Your task to perform on an android device: allow notifications from all sites in the chrome app Image 0: 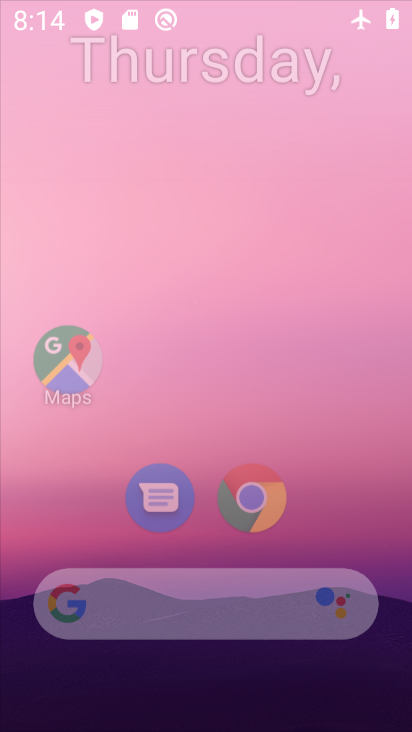
Step 0: drag from (252, 587) to (251, 222)
Your task to perform on an android device: allow notifications from all sites in the chrome app Image 1: 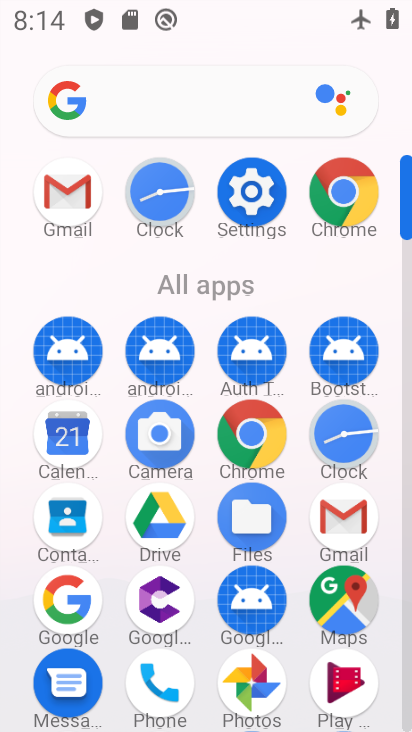
Step 1: click (244, 425)
Your task to perform on an android device: allow notifications from all sites in the chrome app Image 2: 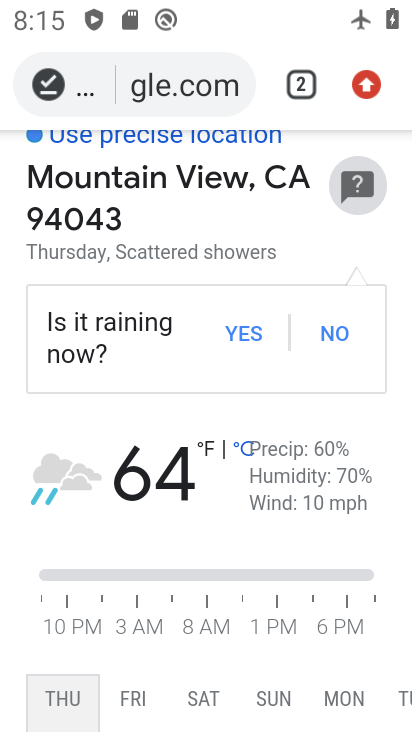
Step 2: click (376, 73)
Your task to perform on an android device: allow notifications from all sites in the chrome app Image 3: 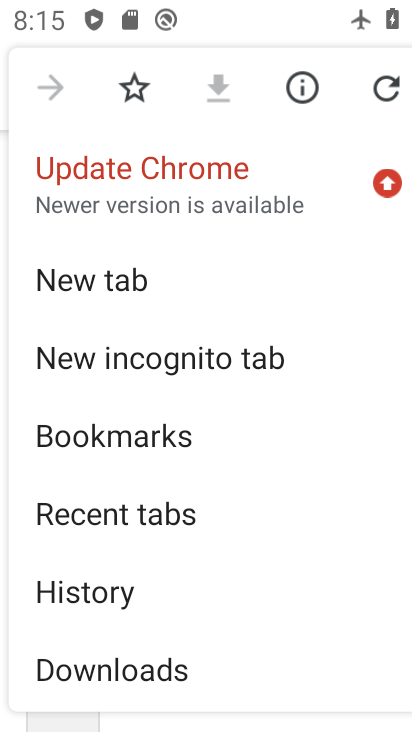
Step 3: drag from (279, 629) to (293, 209)
Your task to perform on an android device: allow notifications from all sites in the chrome app Image 4: 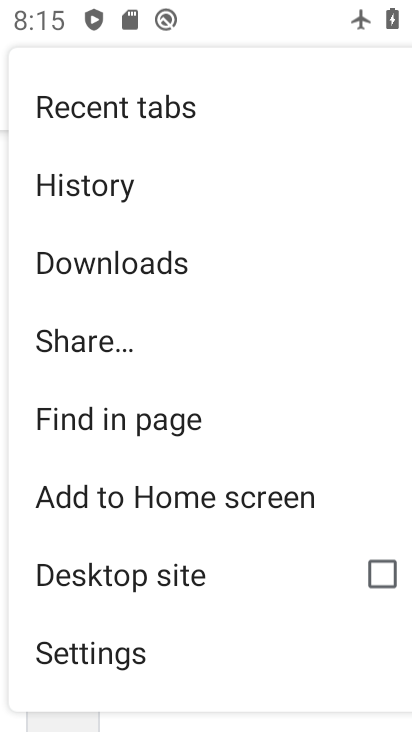
Step 4: click (140, 649)
Your task to perform on an android device: allow notifications from all sites in the chrome app Image 5: 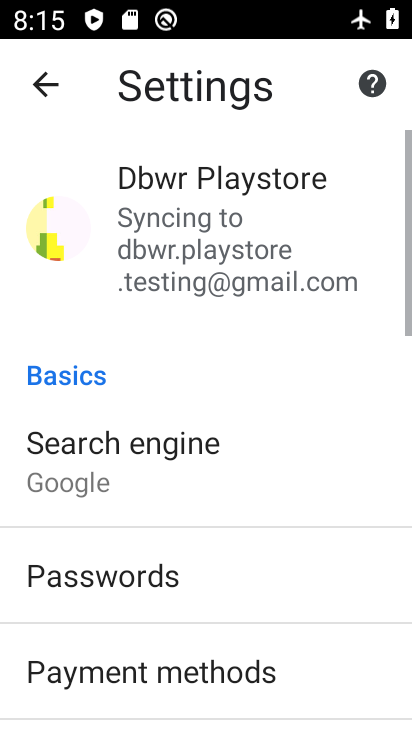
Step 5: drag from (143, 641) to (238, 117)
Your task to perform on an android device: allow notifications from all sites in the chrome app Image 6: 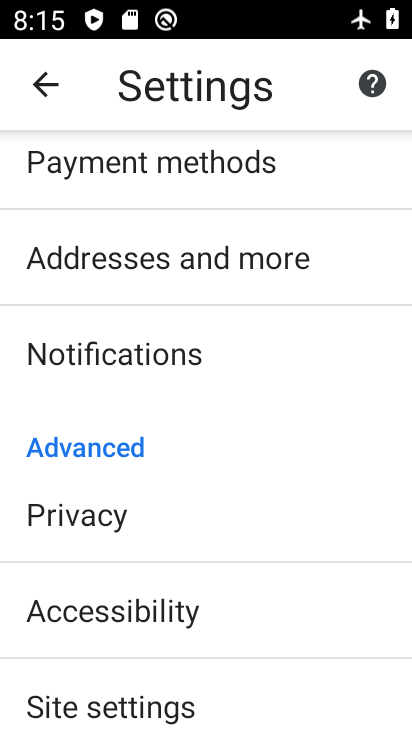
Step 6: drag from (166, 627) to (252, 355)
Your task to perform on an android device: allow notifications from all sites in the chrome app Image 7: 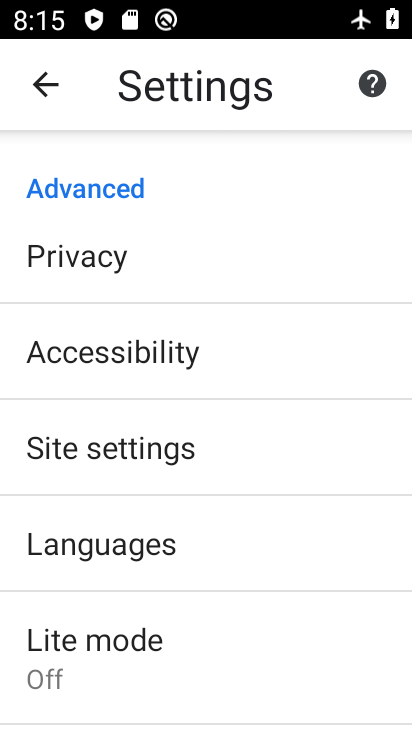
Step 7: click (144, 453)
Your task to perform on an android device: allow notifications from all sites in the chrome app Image 8: 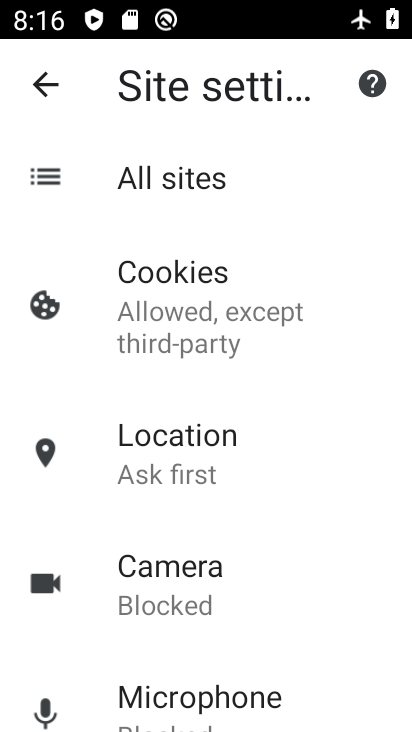
Step 8: click (189, 330)
Your task to perform on an android device: allow notifications from all sites in the chrome app Image 9: 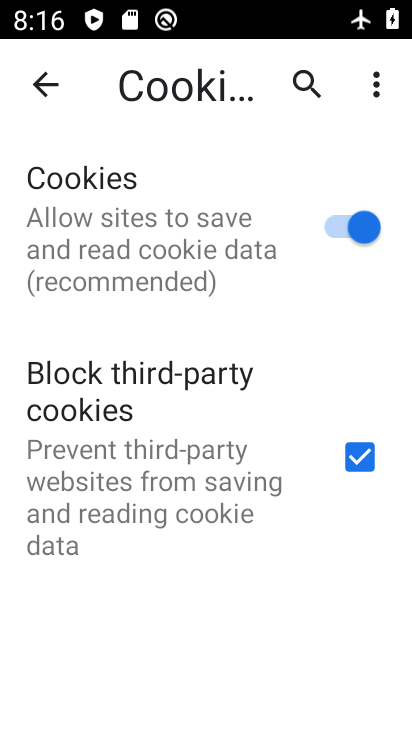
Step 9: click (65, 78)
Your task to perform on an android device: allow notifications from all sites in the chrome app Image 10: 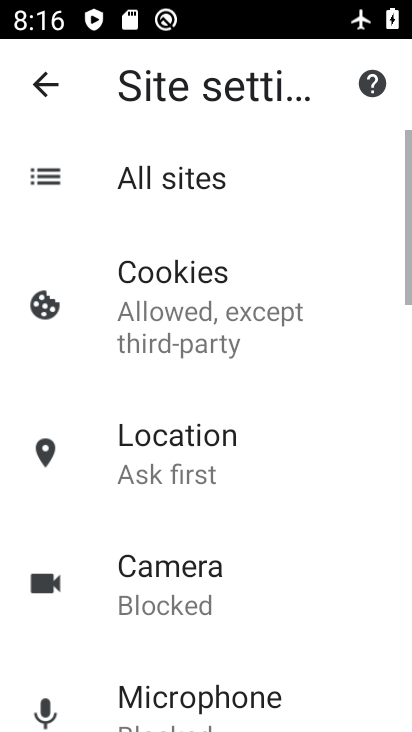
Step 10: click (169, 451)
Your task to perform on an android device: allow notifications from all sites in the chrome app Image 11: 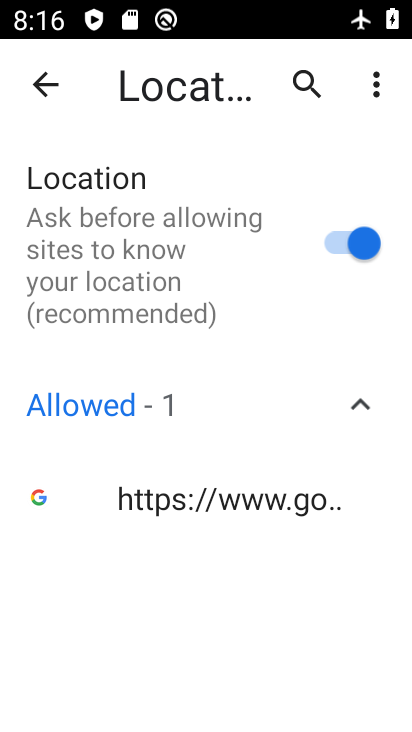
Step 11: click (53, 69)
Your task to perform on an android device: allow notifications from all sites in the chrome app Image 12: 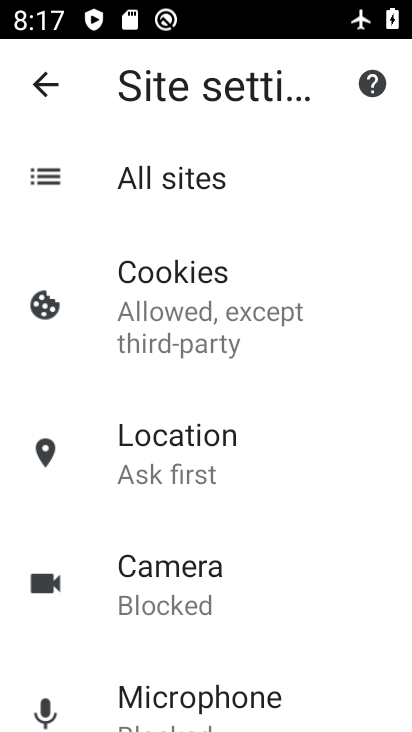
Step 12: click (169, 601)
Your task to perform on an android device: allow notifications from all sites in the chrome app Image 13: 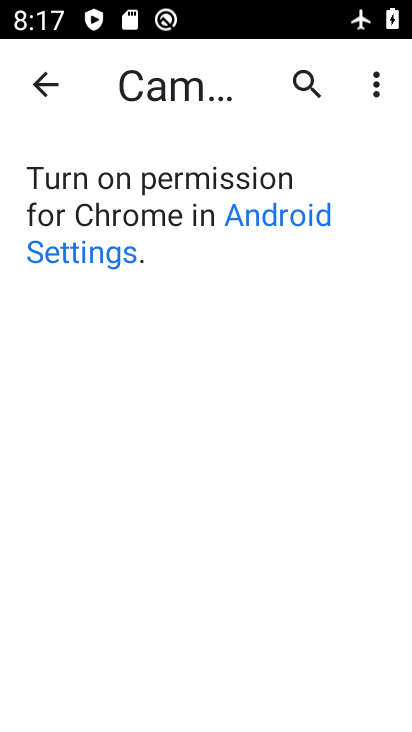
Step 13: click (54, 75)
Your task to perform on an android device: allow notifications from all sites in the chrome app Image 14: 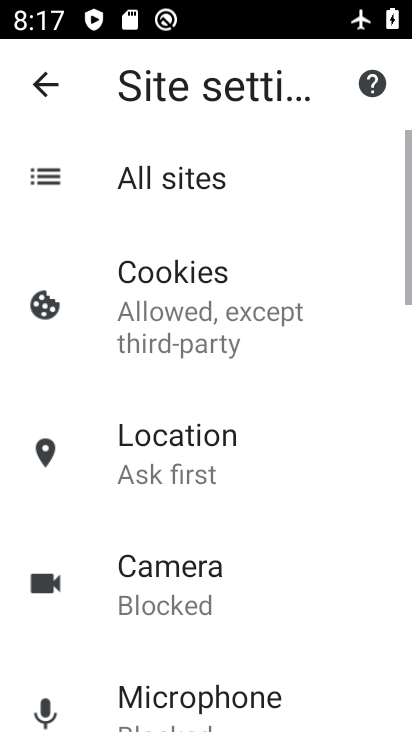
Step 14: drag from (220, 547) to (262, 150)
Your task to perform on an android device: allow notifications from all sites in the chrome app Image 15: 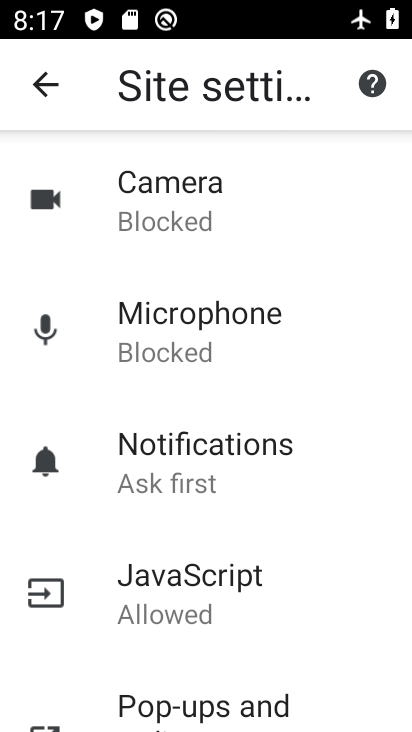
Step 15: click (187, 350)
Your task to perform on an android device: allow notifications from all sites in the chrome app Image 16: 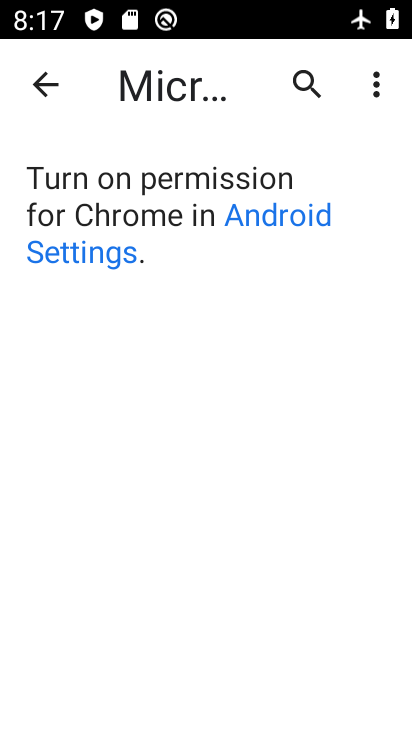
Step 16: click (50, 65)
Your task to perform on an android device: allow notifications from all sites in the chrome app Image 17: 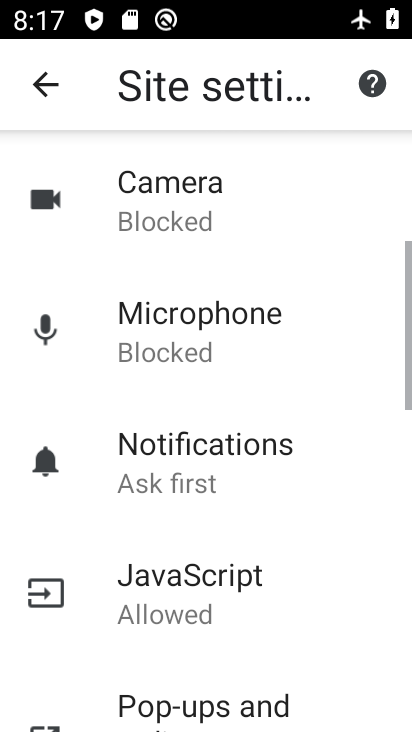
Step 17: click (192, 621)
Your task to perform on an android device: allow notifications from all sites in the chrome app Image 18: 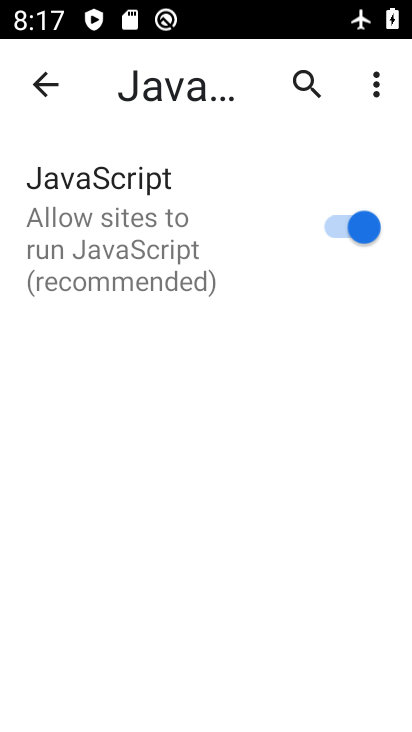
Step 18: click (33, 68)
Your task to perform on an android device: allow notifications from all sites in the chrome app Image 19: 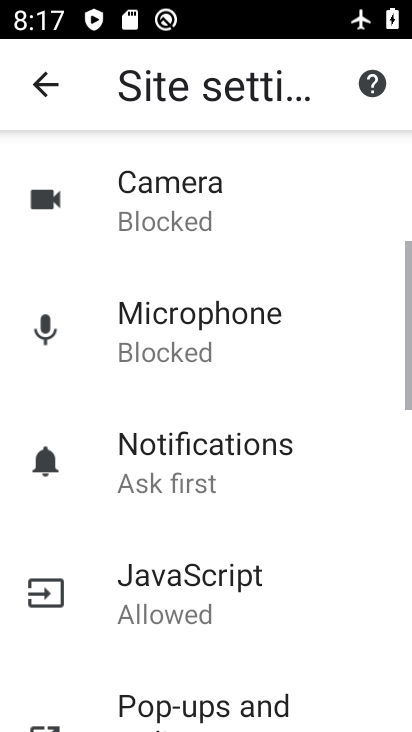
Step 19: click (204, 477)
Your task to perform on an android device: allow notifications from all sites in the chrome app Image 20: 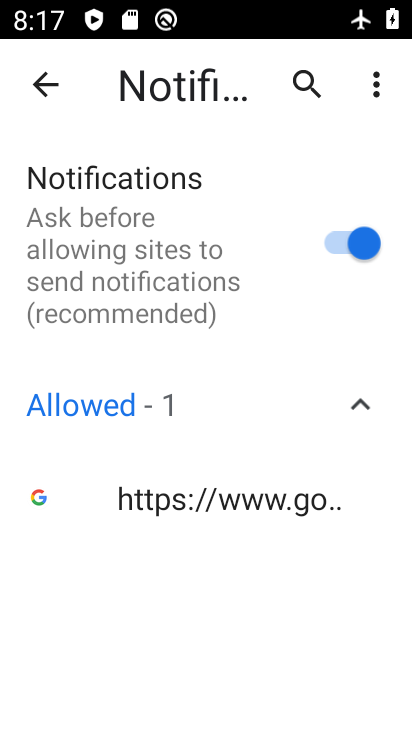
Step 20: click (51, 69)
Your task to perform on an android device: allow notifications from all sites in the chrome app Image 21: 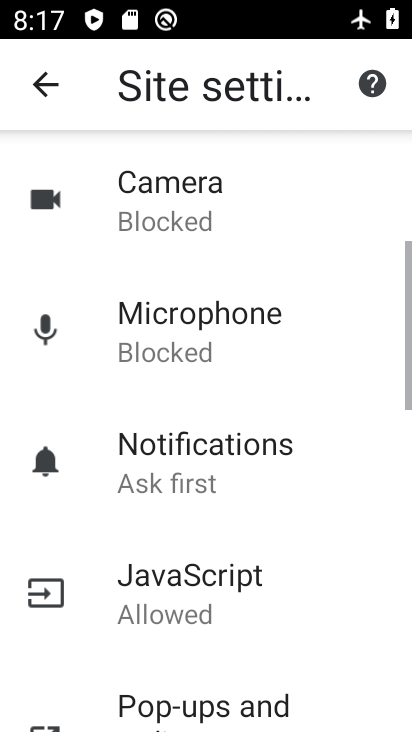
Step 21: drag from (166, 572) to (188, 205)
Your task to perform on an android device: allow notifications from all sites in the chrome app Image 22: 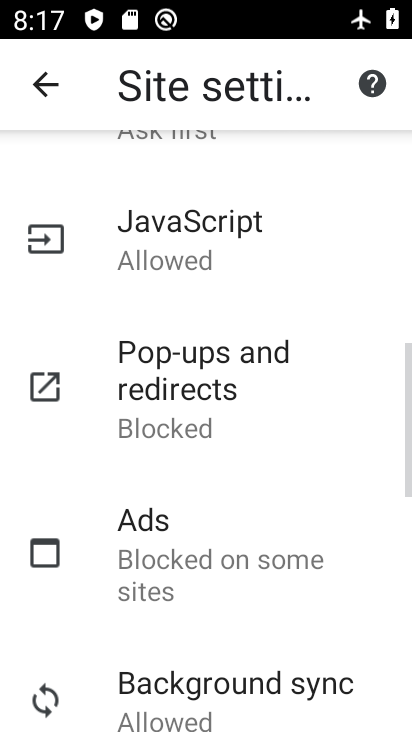
Step 22: click (150, 354)
Your task to perform on an android device: allow notifications from all sites in the chrome app Image 23: 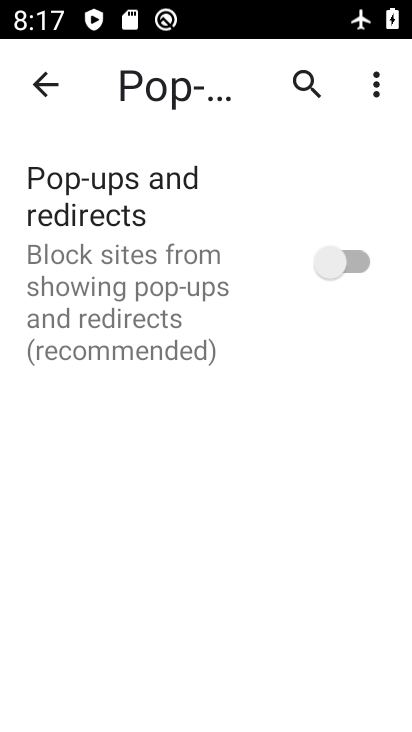
Step 23: click (352, 252)
Your task to perform on an android device: allow notifications from all sites in the chrome app Image 24: 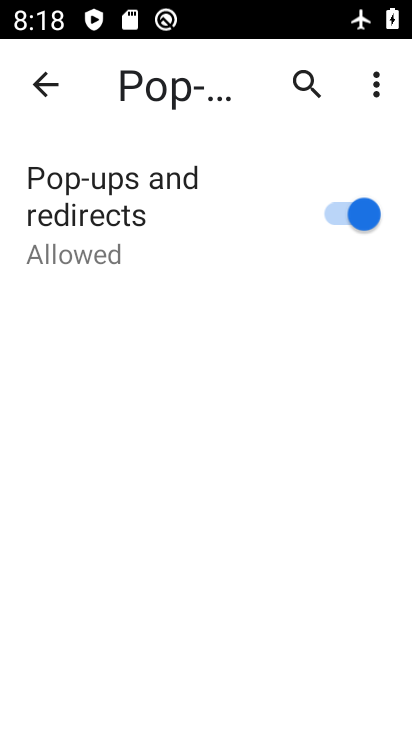
Step 24: click (40, 78)
Your task to perform on an android device: allow notifications from all sites in the chrome app Image 25: 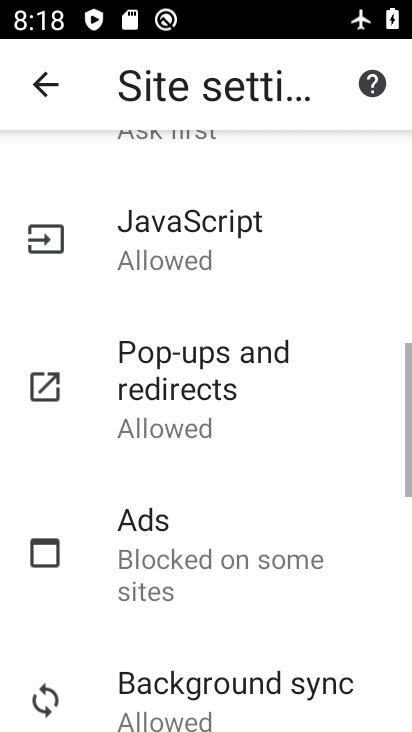
Step 25: drag from (195, 647) to (253, 273)
Your task to perform on an android device: allow notifications from all sites in the chrome app Image 26: 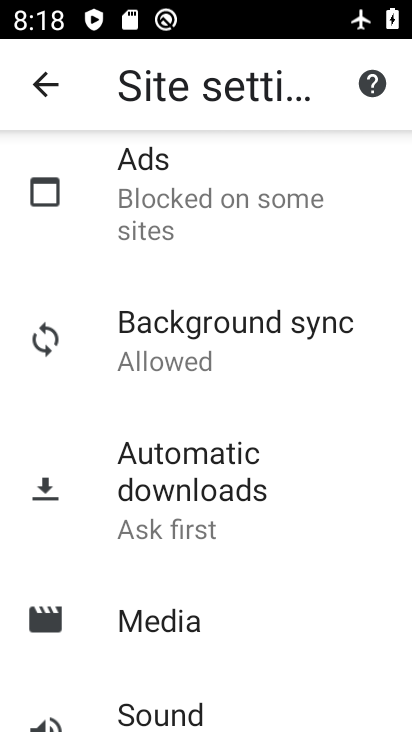
Step 26: click (203, 187)
Your task to perform on an android device: allow notifications from all sites in the chrome app Image 27: 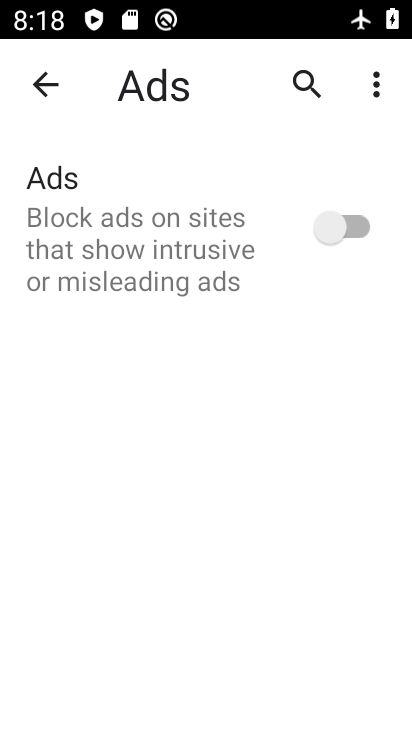
Step 27: click (343, 219)
Your task to perform on an android device: allow notifications from all sites in the chrome app Image 28: 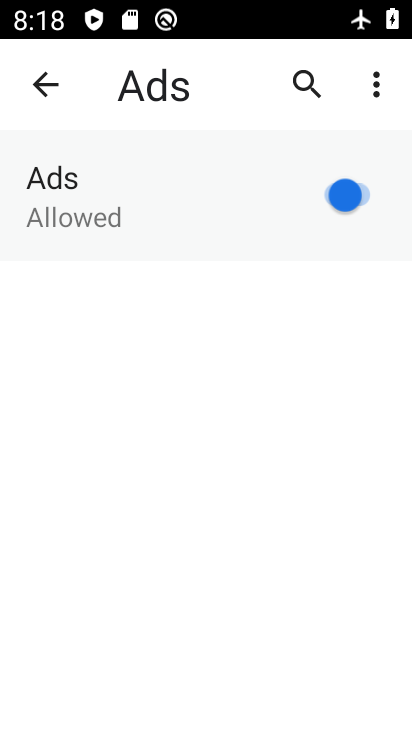
Step 28: click (43, 86)
Your task to perform on an android device: allow notifications from all sites in the chrome app Image 29: 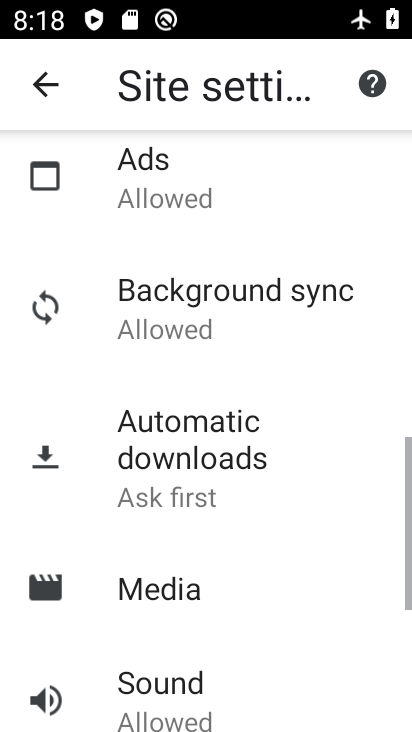
Step 29: click (158, 436)
Your task to perform on an android device: allow notifications from all sites in the chrome app Image 30: 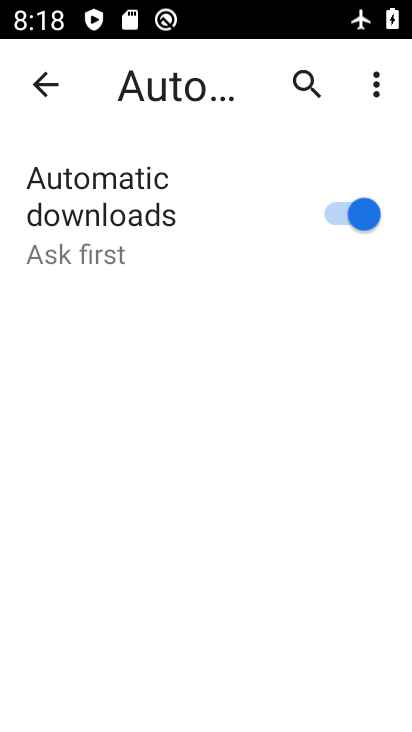
Step 30: click (42, 64)
Your task to perform on an android device: allow notifications from all sites in the chrome app Image 31: 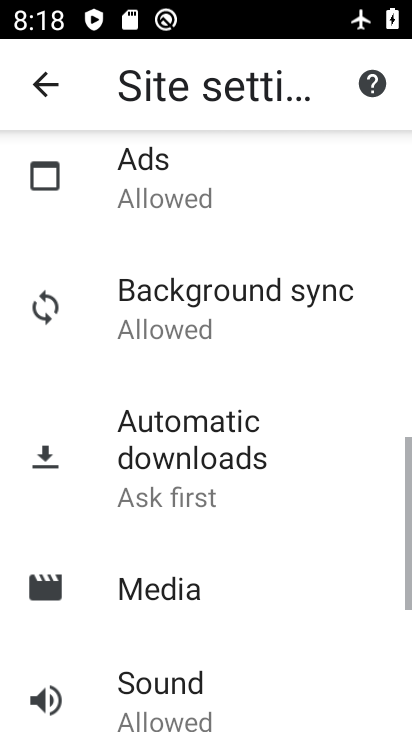
Step 31: click (170, 622)
Your task to perform on an android device: allow notifications from all sites in the chrome app Image 32: 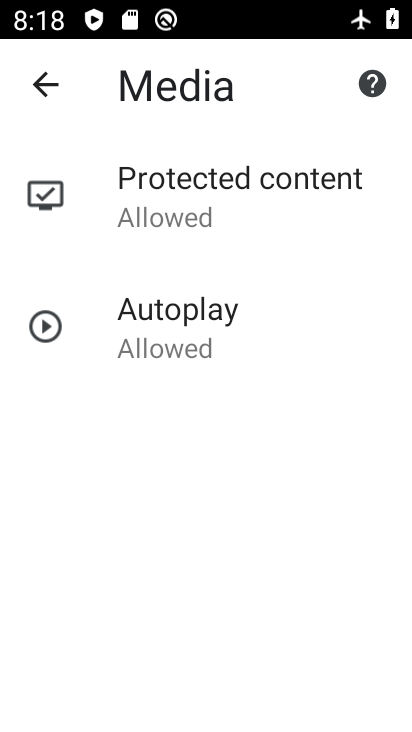
Step 32: click (48, 102)
Your task to perform on an android device: allow notifications from all sites in the chrome app Image 33: 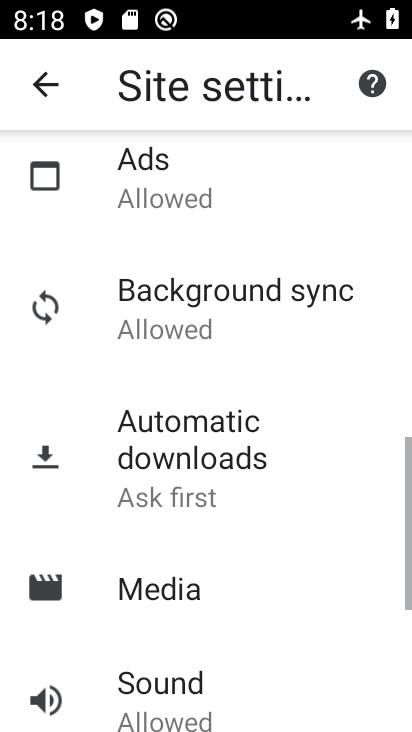
Step 33: task complete